Your task to perform on an android device: move an email to a new category in the gmail app Image 0: 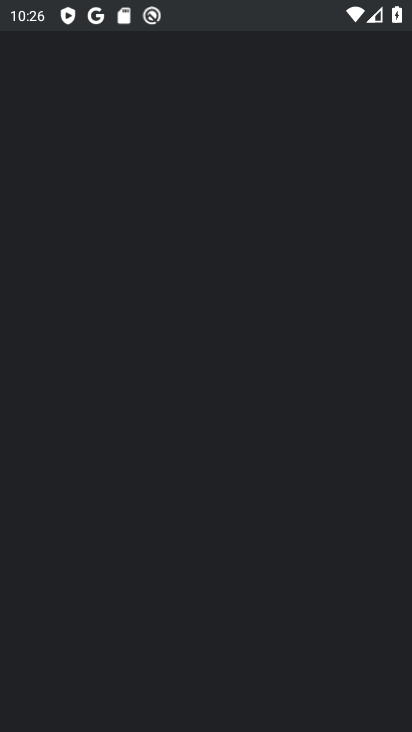
Step 0: press home button
Your task to perform on an android device: move an email to a new category in the gmail app Image 1: 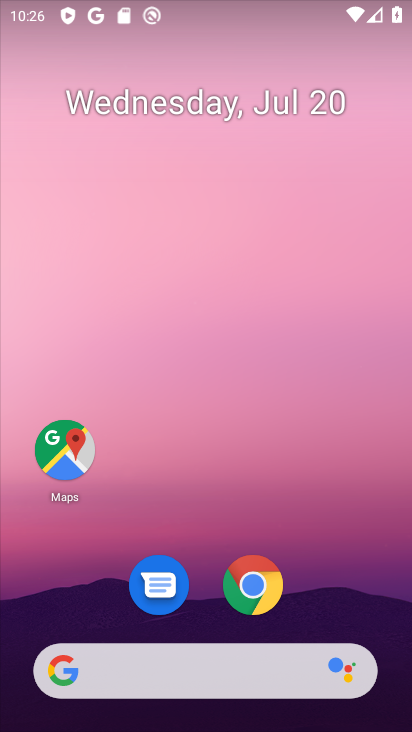
Step 1: drag from (217, 654) to (301, 214)
Your task to perform on an android device: move an email to a new category in the gmail app Image 2: 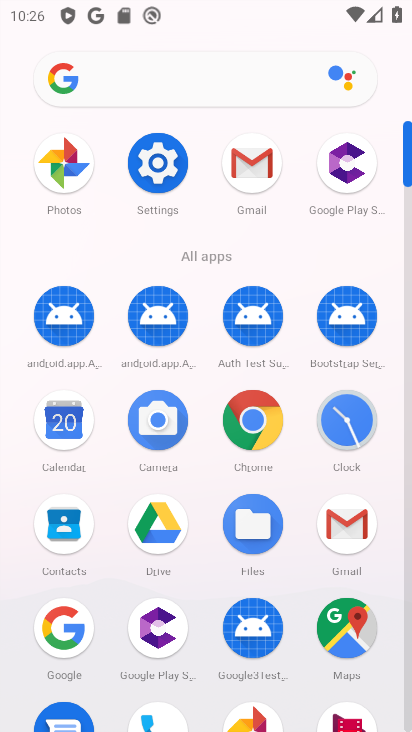
Step 2: click (248, 176)
Your task to perform on an android device: move an email to a new category in the gmail app Image 3: 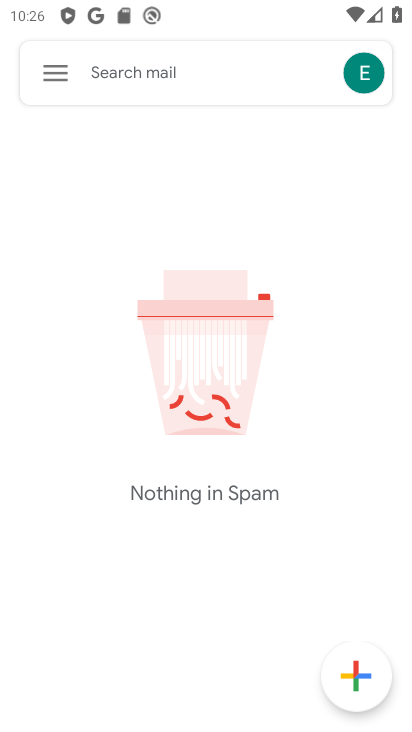
Step 3: task complete